Your task to perform on an android device: choose inbox layout in the gmail app Image 0: 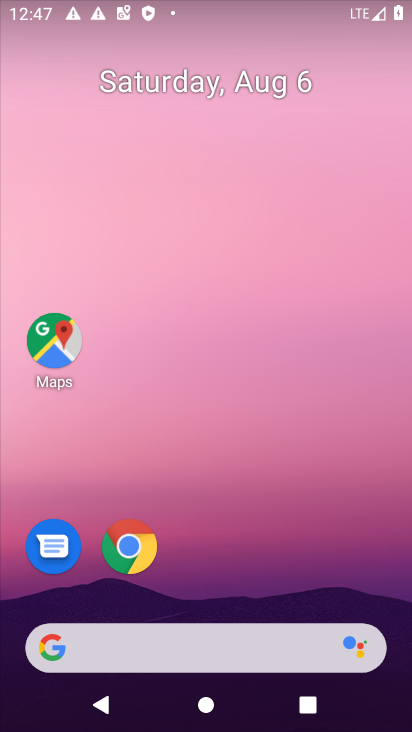
Step 0: drag from (362, 596) to (354, 31)
Your task to perform on an android device: choose inbox layout in the gmail app Image 1: 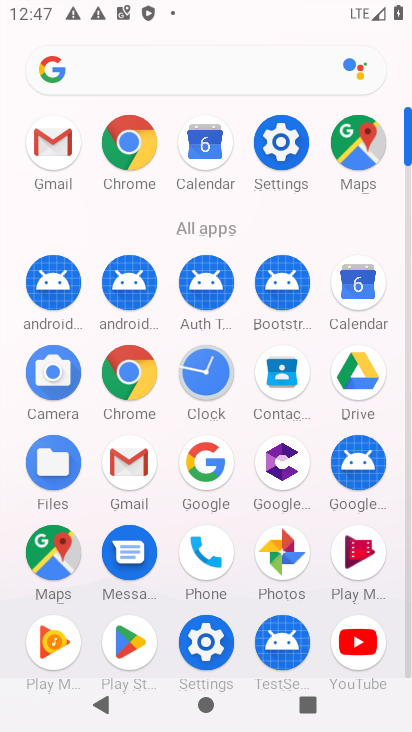
Step 1: click (127, 462)
Your task to perform on an android device: choose inbox layout in the gmail app Image 2: 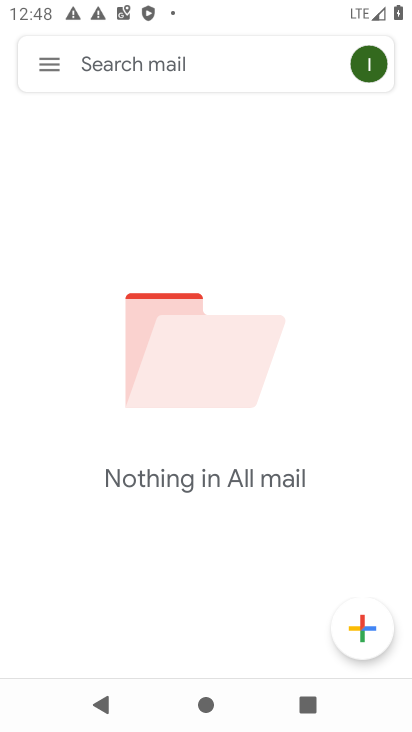
Step 2: click (48, 67)
Your task to perform on an android device: choose inbox layout in the gmail app Image 3: 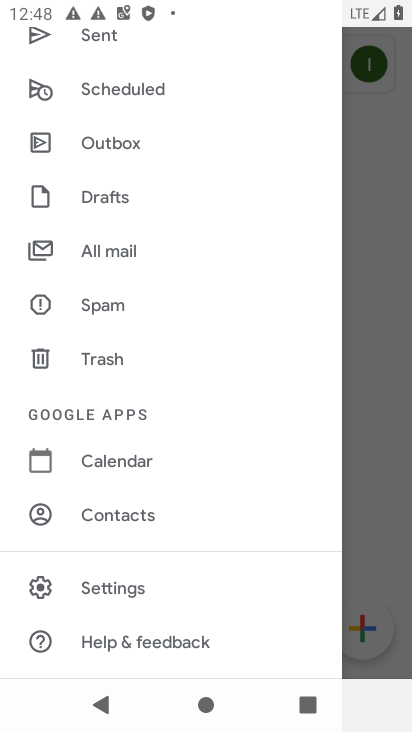
Step 3: click (118, 584)
Your task to perform on an android device: choose inbox layout in the gmail app Image 4: 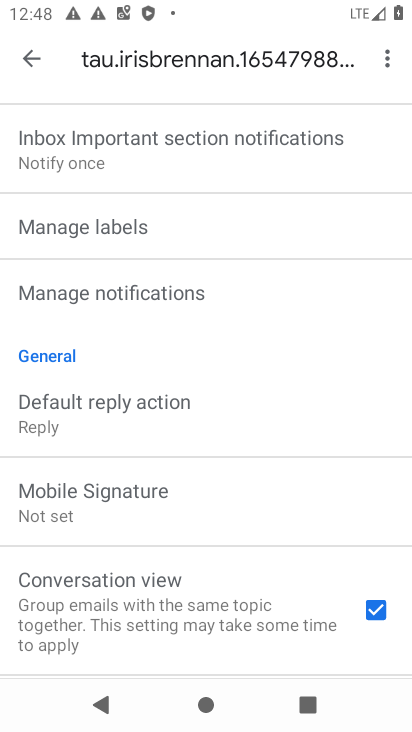
Step 4: drag from (320, 234) to (299, 517)
Your task to perform on an android device: choose inbox layout in the gmail app Image 5: 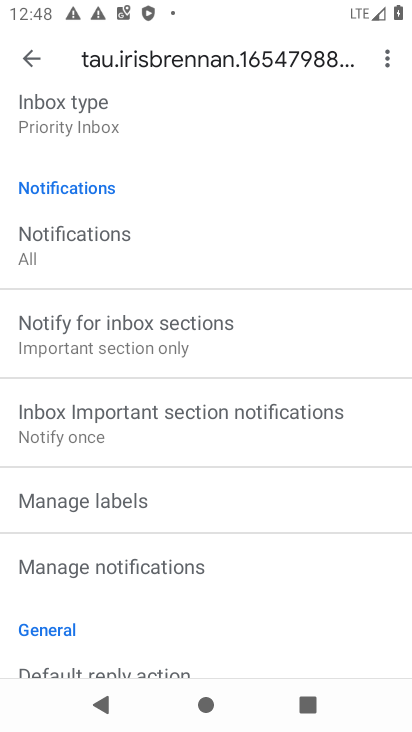
Step 5: drag from (280, 183) to (274, 344)
Your task to perform on an android device: choose inbox layout in the gmail app Image 6: 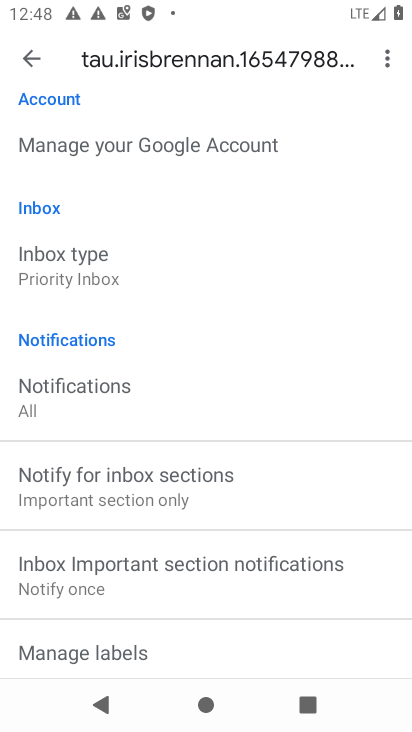
Step 6: click (69, 266)
Your task to perform on an android device: choose inbox layout in the gmail app Image 7: 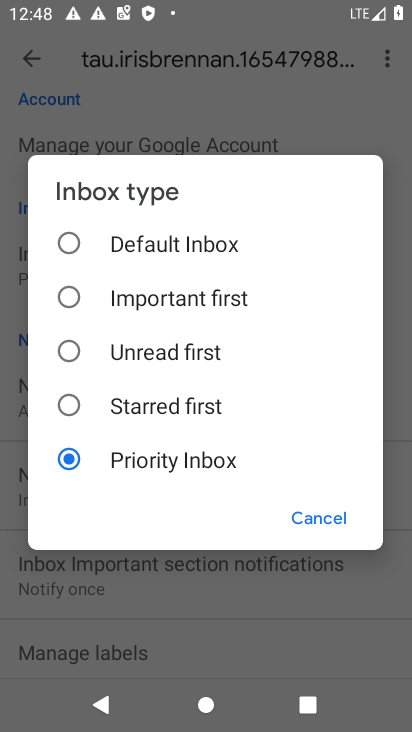
Step 7: click (65, 245)
Your task to perform on an android device: choose inbox layout in the gmail app Image 8: 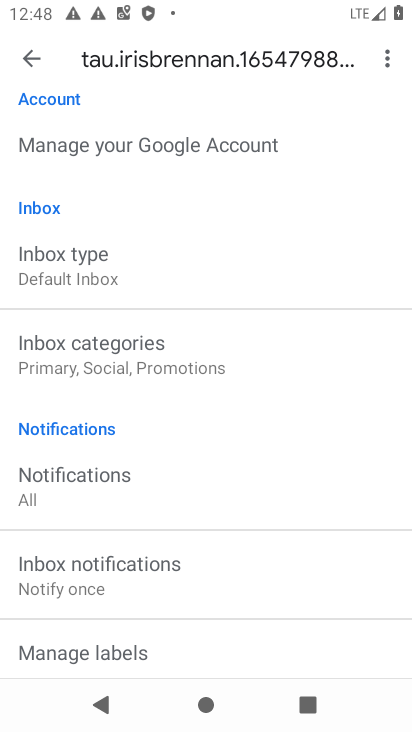
Step 8: task complete